Your task to perform on an android device: refresh tabs in the chrome app Image 0: 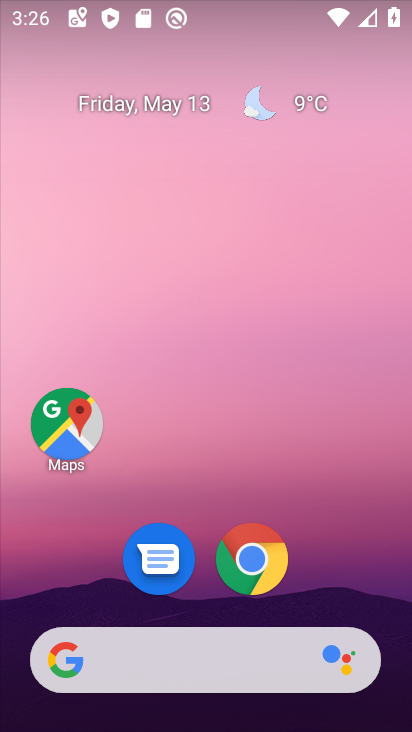
Step 0: click (251, 557)
Your task to perform on an android device: refresh tabs in the chrome app Image 1: 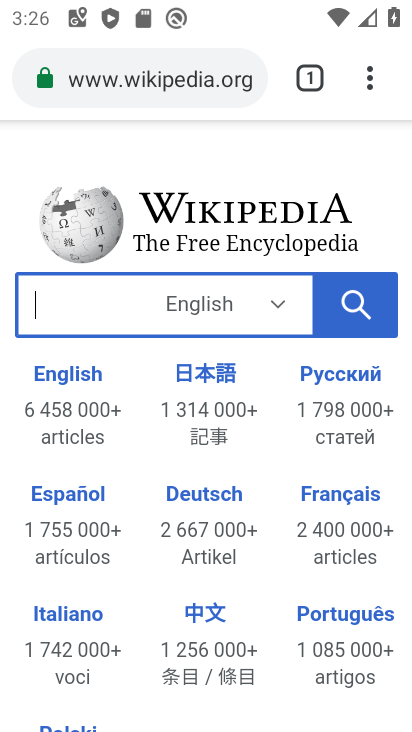
Step 1: click (366, 75)
Your task to perform on an android device: refresh tabs in the chrome app Image 2: 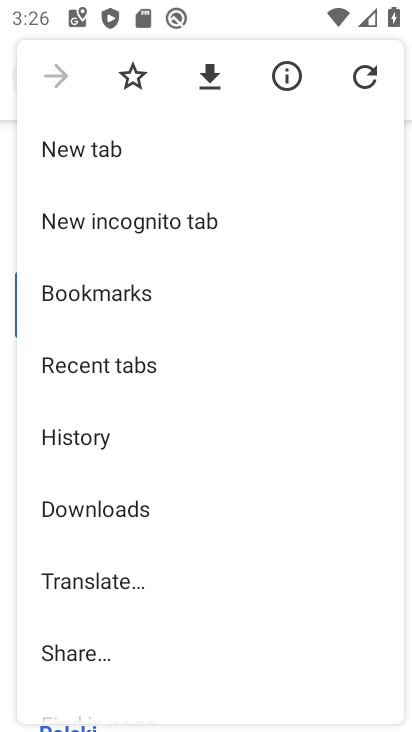
Step 2: click (360, 72)
Your task to perform on an android device: refresh tabs in the chrome app Image 3: 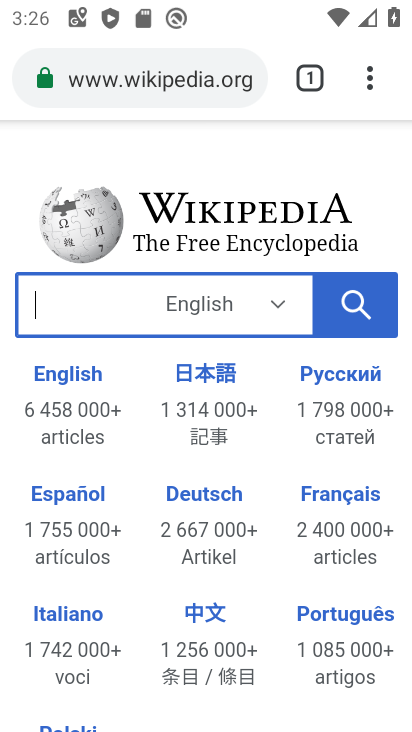
Step 3: task complete